Your task to perform on an android device: Open Yahoo.com Image 0: 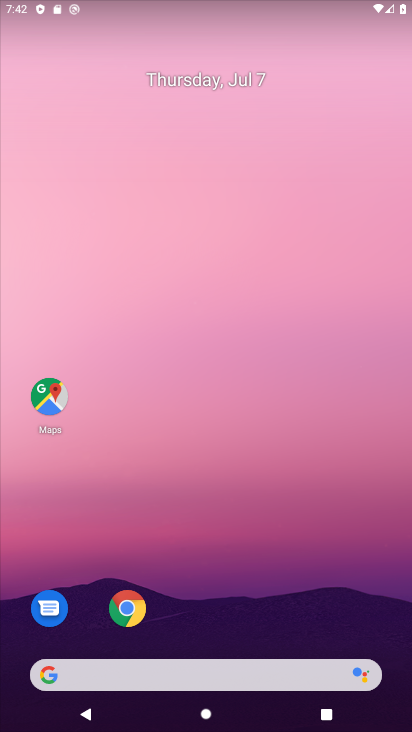
Step 0: drag from (402, 646) to (376, 464)
Your task to perform on an android device: Open Yahoo.com Image 1: 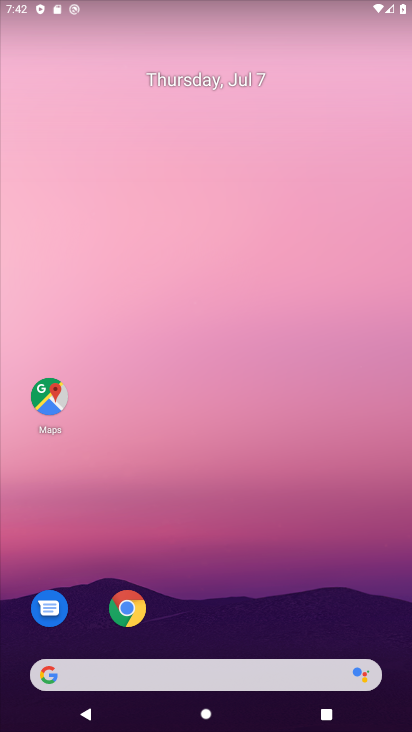
Step 1: drag from (392, 615) to (306, 103)
Your task to perform on an android device: Open Yahoo.com Image 2: 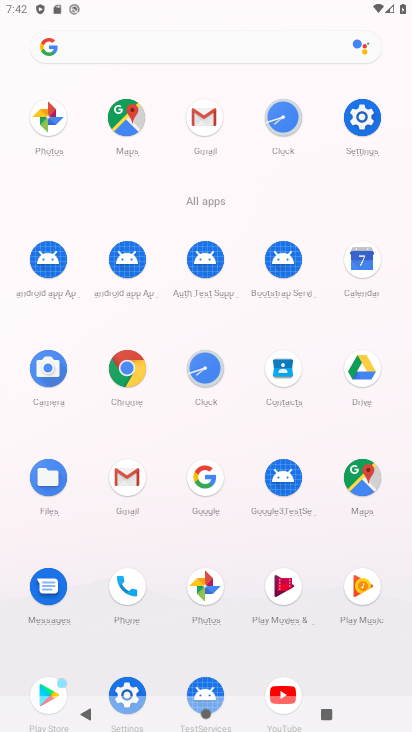
Step 2: click (127, 365)
Your task to perform on an android device: Open Yahoo.com Image 3: 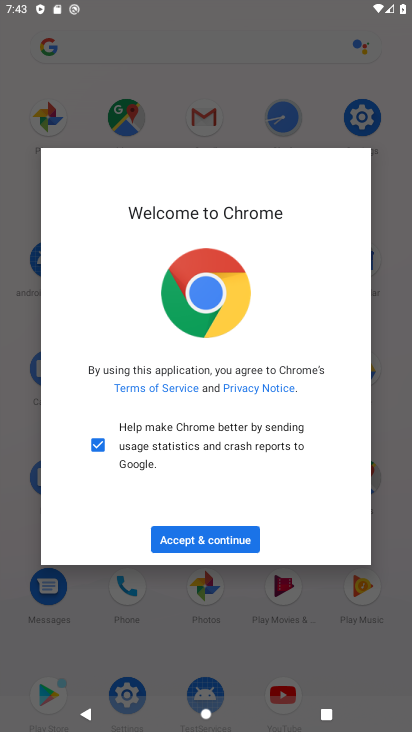
Step 3: click (203, 533)
Your task to perform on an android device: Open Yahoo.com Image 4: 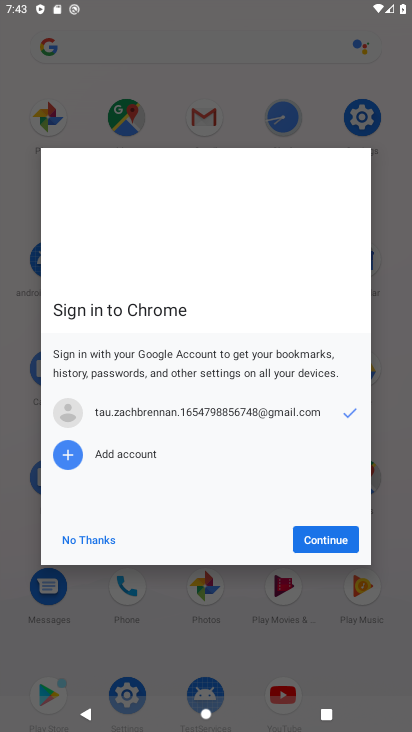
Step 4: click (311, 538)
Your task to perform on an android device: Open Yahoo.com Image 5: 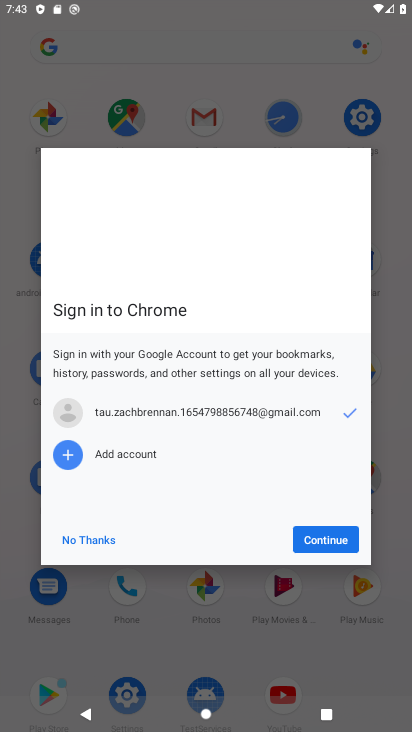
Step 5: click (311, 538)
Your task to perform on an android device: Open Yahoo.com Image 6: 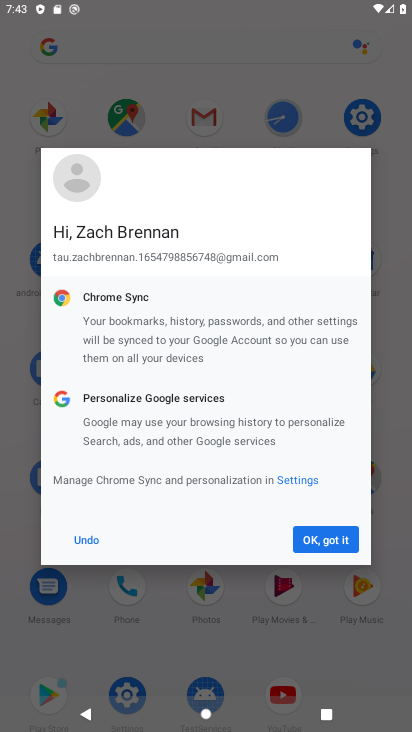
Step 6: click (311, 538)
Your task to perform on an android device: Open Yahoo.com Image 7: 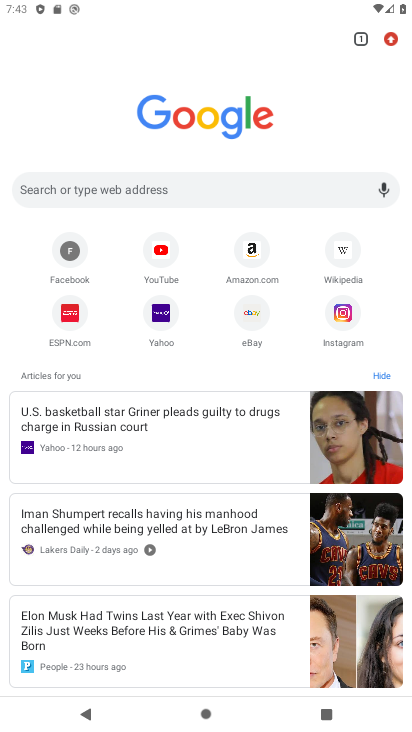
Step 7: click (162, 315)
Your task to perform on an android device: Open Yahoo.com Image 8: 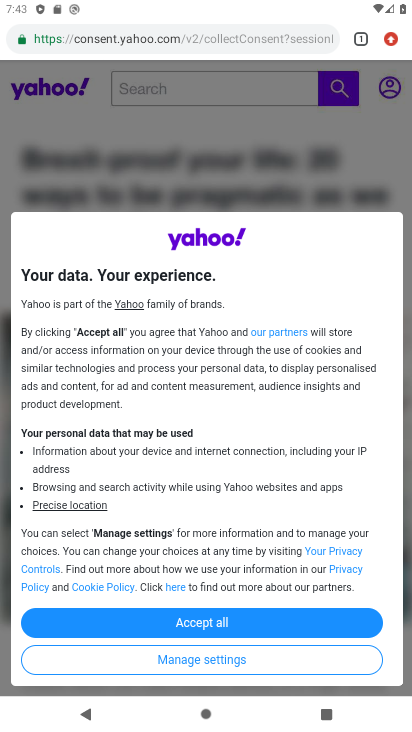
Step 8: click (200, 625)
Your task to perform on an android device: Open Yahoo.com Image 9: 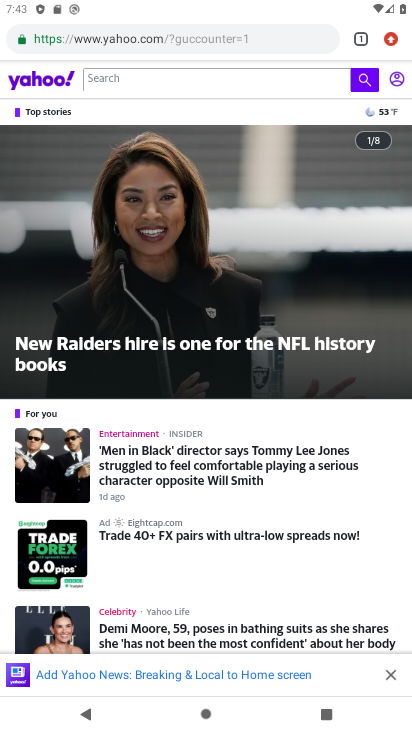
Step 9: task complete